Your task to perform on an android device: Open the stopwatch Image 0: 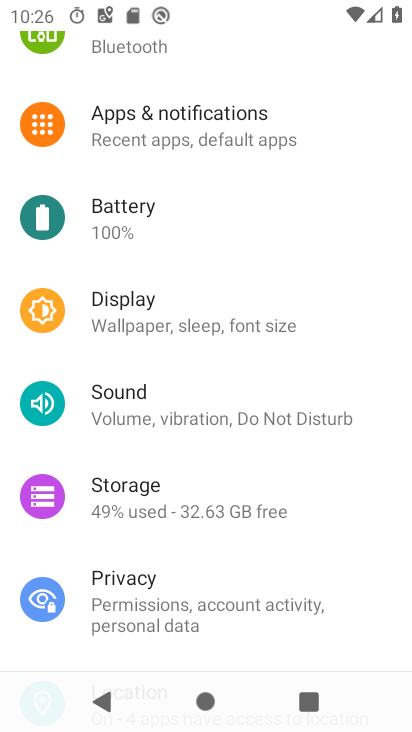
Step 0: press home button
Your task to perform on an android device: Open the stopwatch Image 1: 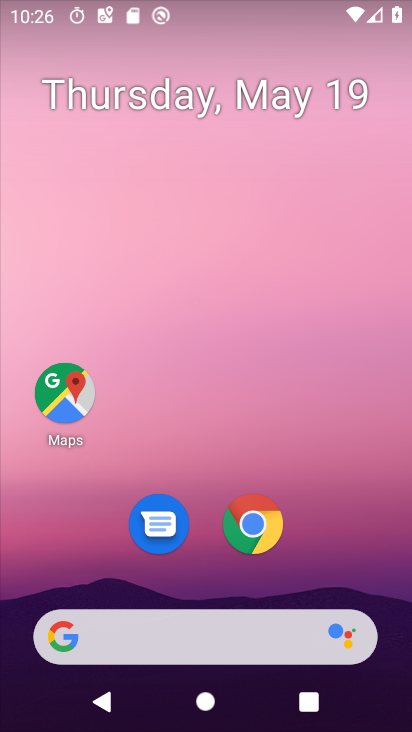
Step 1: drag from (301, 459) to (324, 78)
Your task to perform on an android device: Open the stopwatch Image 2: 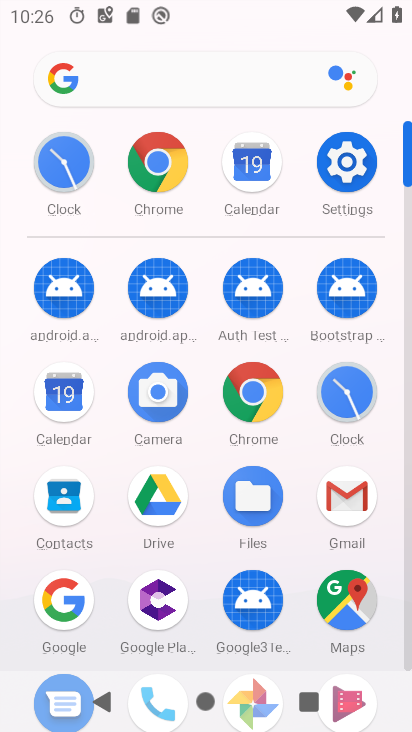
Step 2: click (345, 389)
Your task to perform on an android device: Open the stopwatch Image 3: 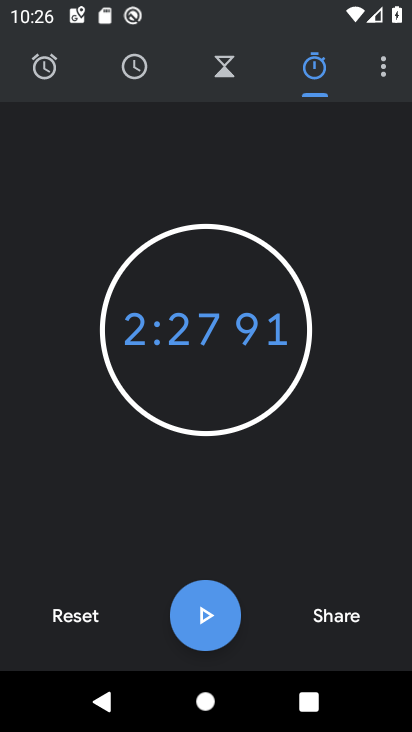
Step 3: click (87, 613)
Your task to perform on an android device: Open the stopwatch Image 4: 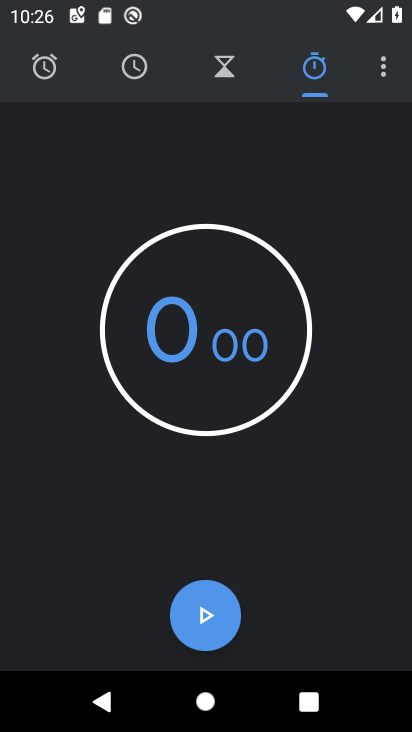
Step 4: task complete